Your task to perform on an android device: Open calendar and show me the second week of next month Image 0: 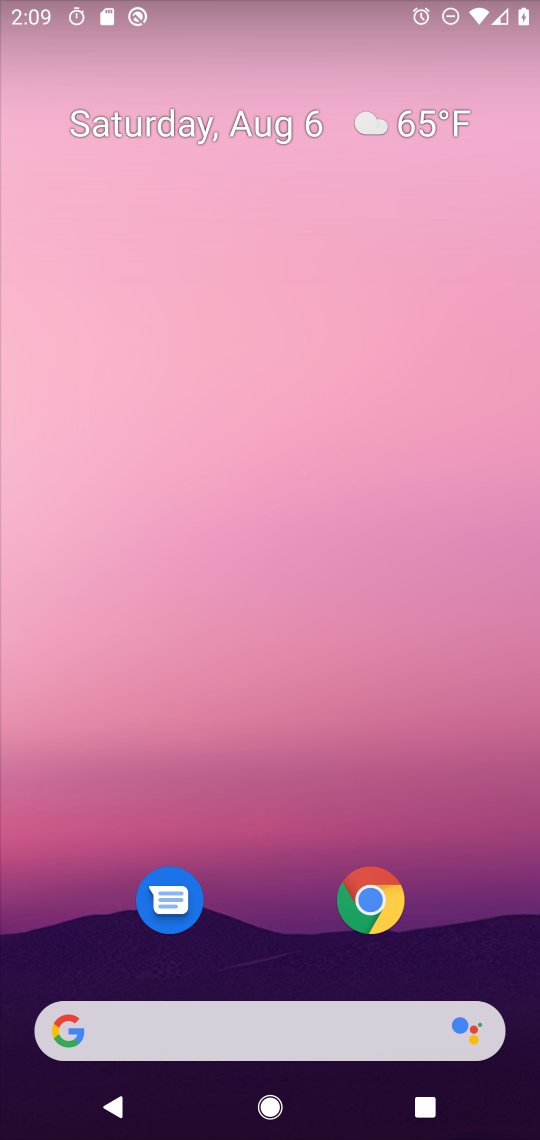
Step 0: drag from (296, 696) to (292, 391)
Your task to perform on an android device: Open calendar and show me the second week of next month Image 1: 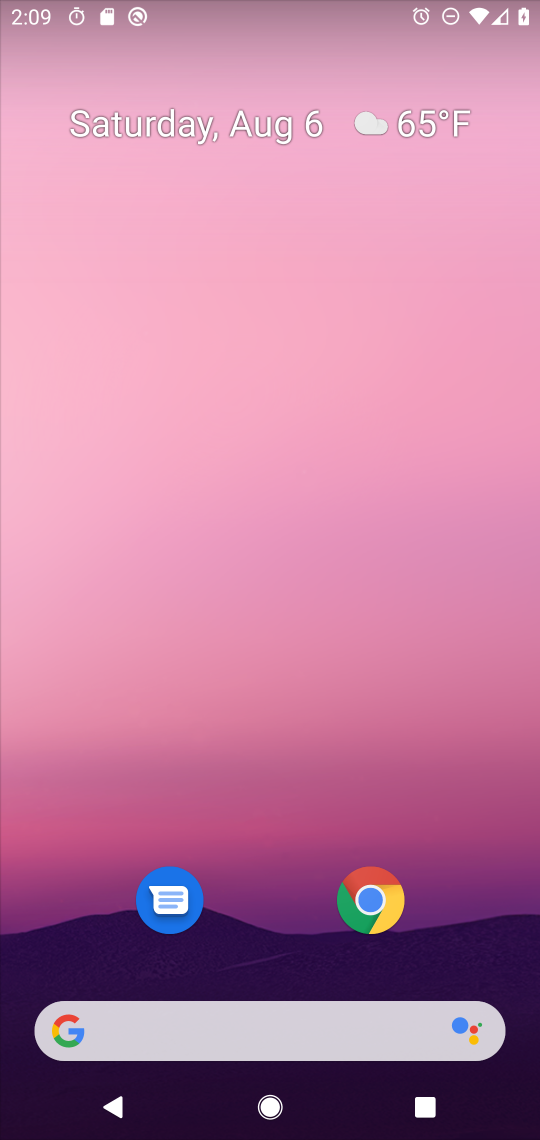
Step 1: drag from (294, 850) to (290, 329)
Your task to perform on an android device: Open calendar and show me the second week of next month Image 2: 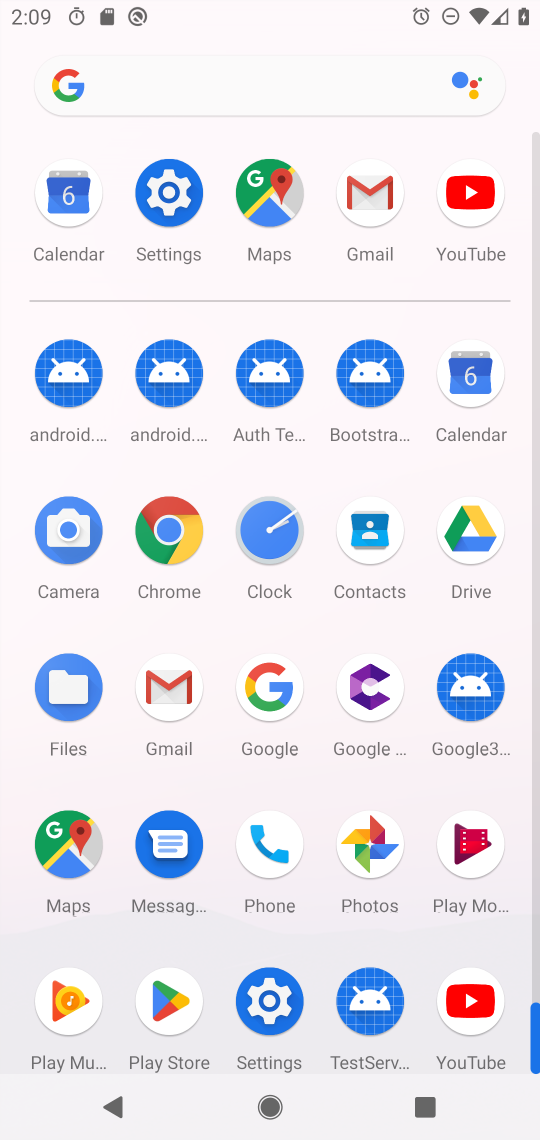
Step 2: click (478, 375)
Your task to perform on an android device: Open calendar and show me the second week of next month Image 3: 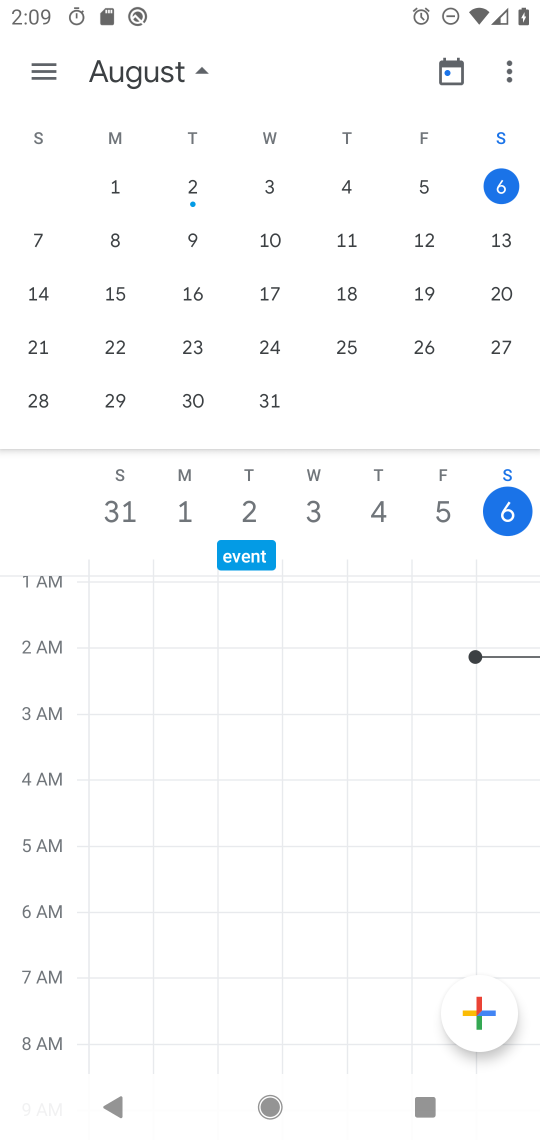
Step 3: drag from (497, 293) to (5, 270)
Your task to perform on an android device: Open calendar and show me the second week of next month Image 4: 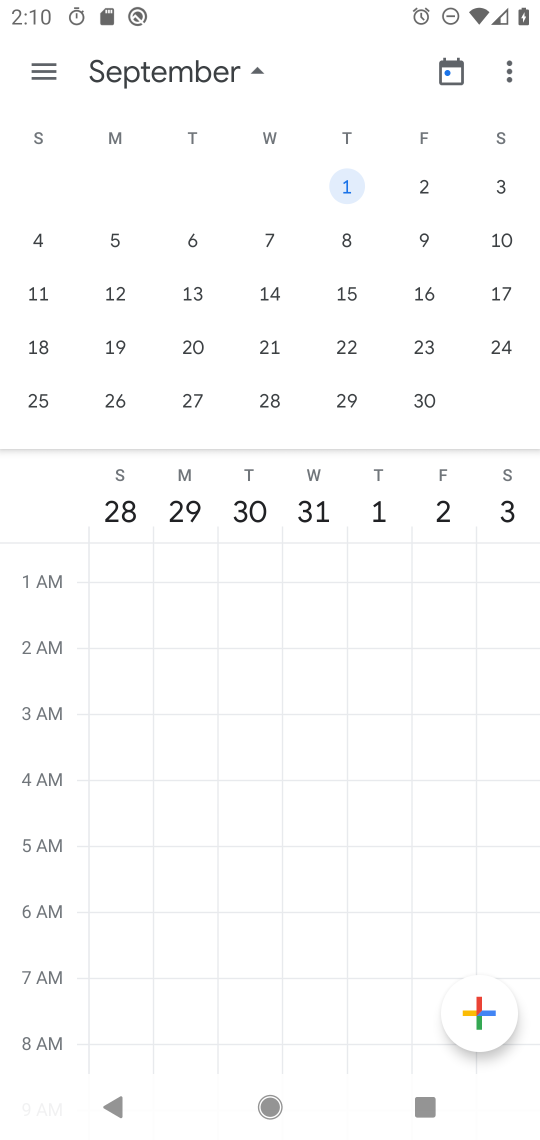
Step 4: click (118, 291)
Your task to perform on an android device: Open calendar and show me the second week of next month Image 5: 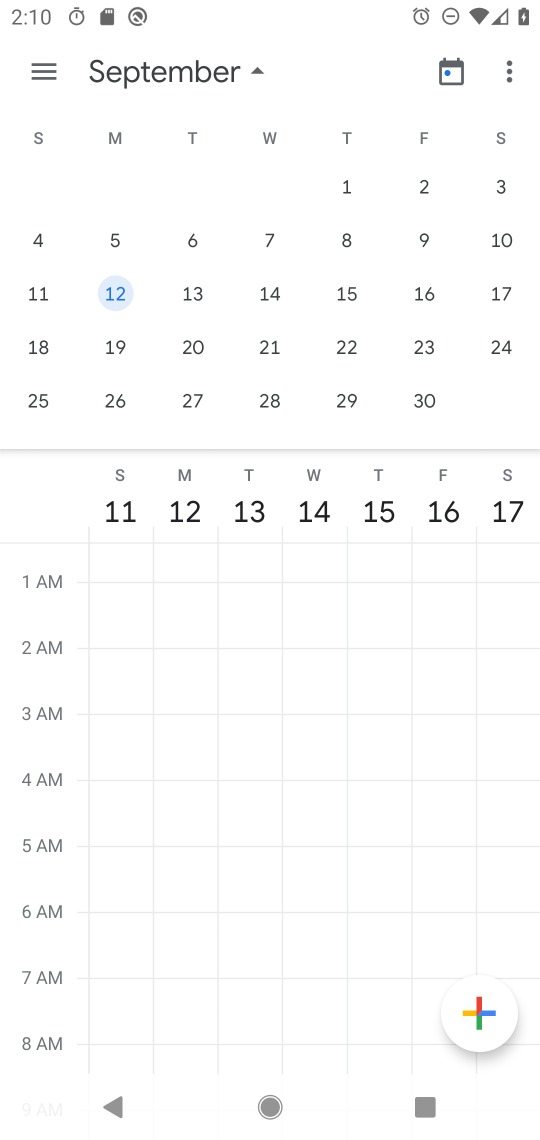
Step 5: click (29, 62)
Your task to perform on an android device: Open calendar and show me the second week of next month Image 6: 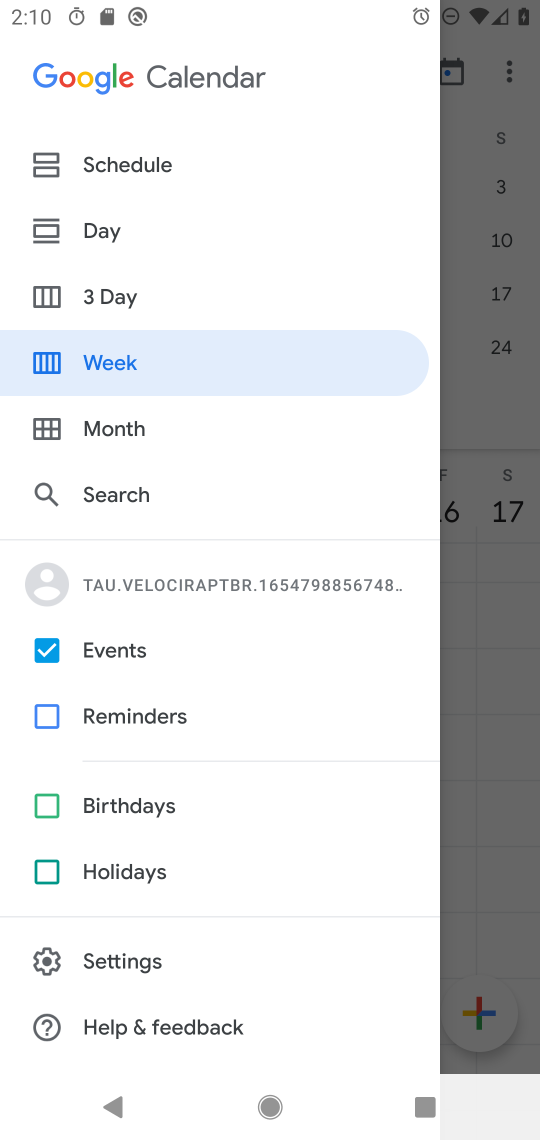
Step 6: click (102, 362)
Your task to perform on an android device: Open calendar and show me the second week of next month Image 7: 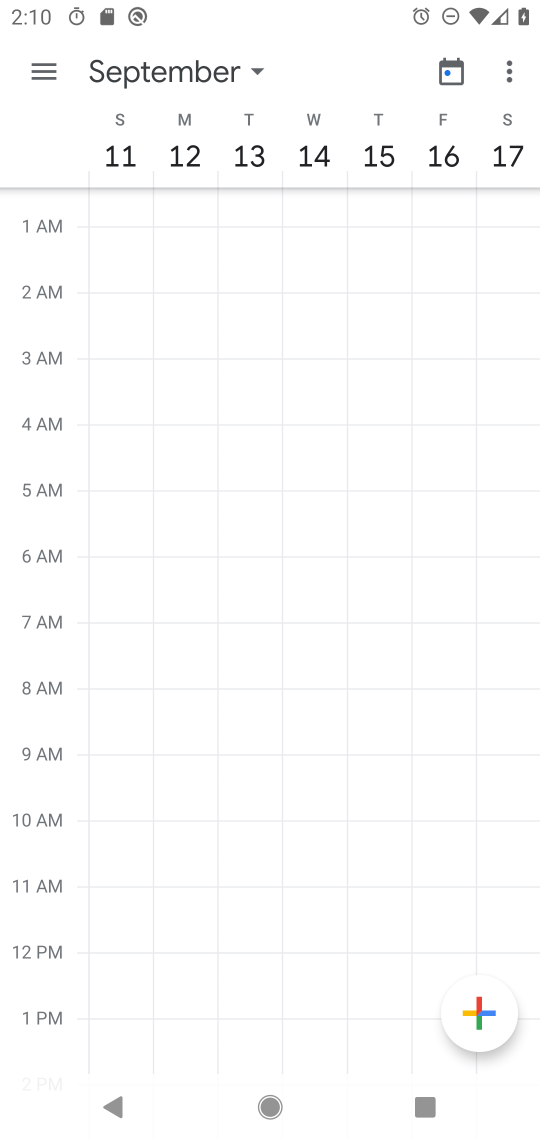
Step 7: task complete